Your task to perform on an android device: Is it going to rain tomorrow? Image 0: 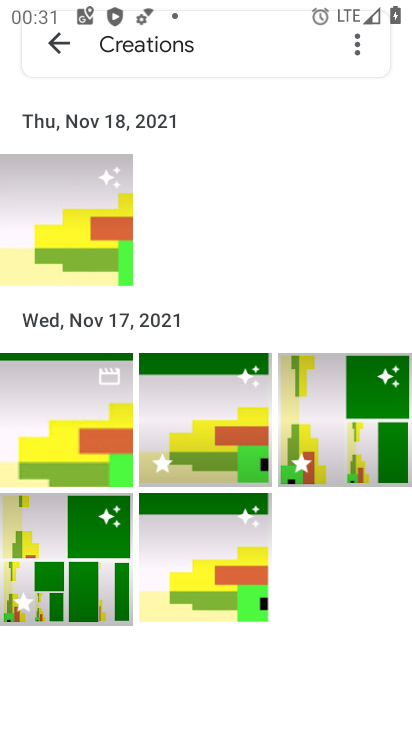
Step 0: press home button
Your task to perform on an android device: Is it going to rain tomorrow? Image 1: 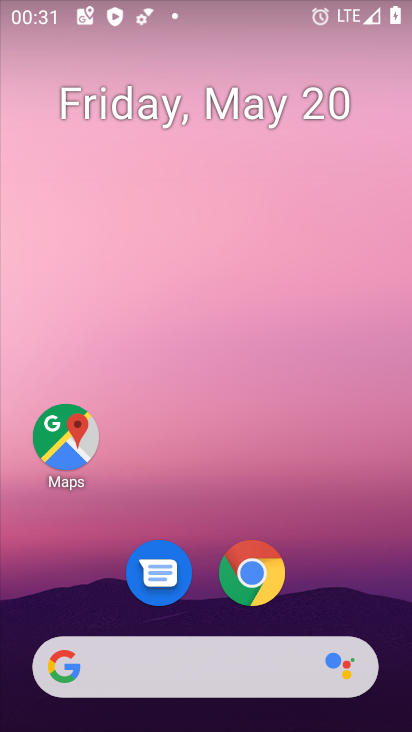
Step 1: drag from (197, 617) to (200, 182)
Your task to perform on an android device: Is it going to rain tomorrow? Image 2: 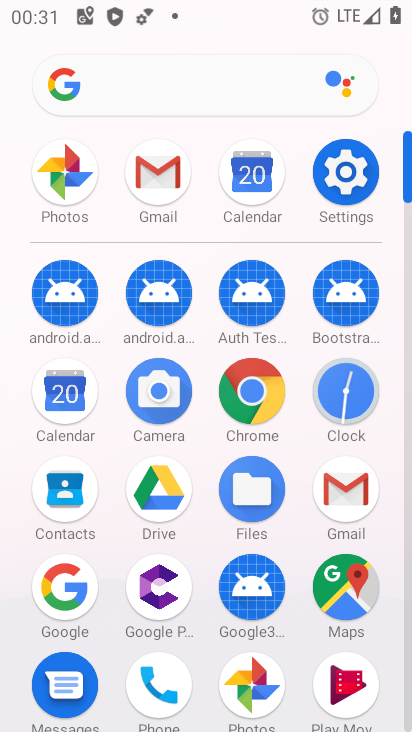
Step 2: click (71, 592)
Your task to perform on an android device: Is it going to rain tomorrow? Image 3: 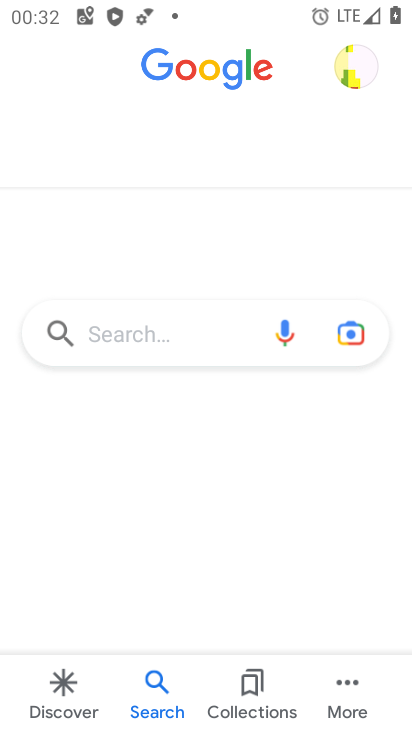
Step 3: click (157, 314)
Your task to perform on an android device: Is it going to rain tomorrow? Image 4: 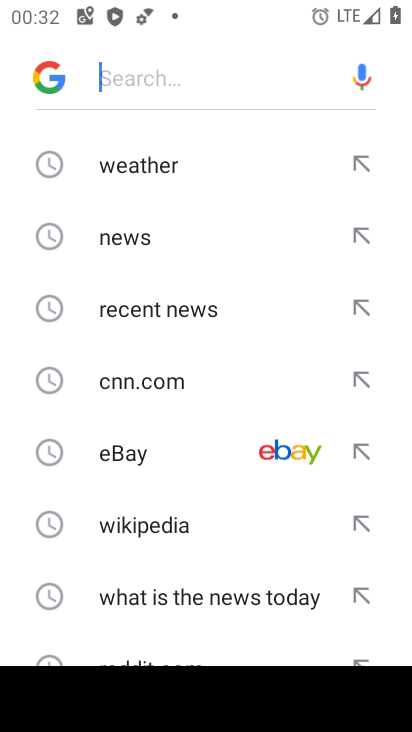
Step 4: click (153, 166)
Your task to perform on an android device: Is it going to rain tomorrow? Image 5: 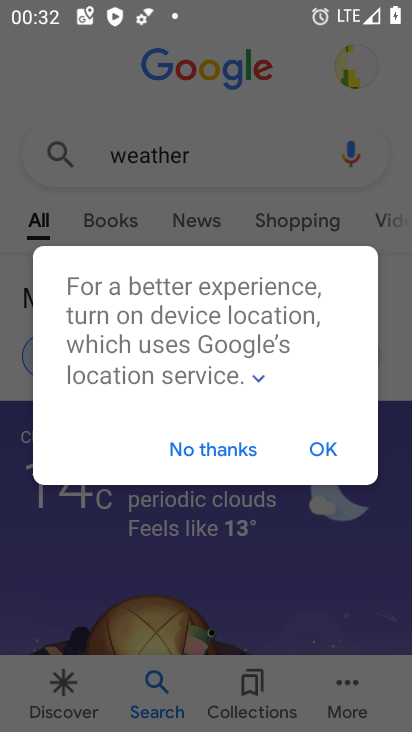
Step 5: click (253, 452)
Your task to perform on an android device: Is it going to rain tomorrow? Image 6: 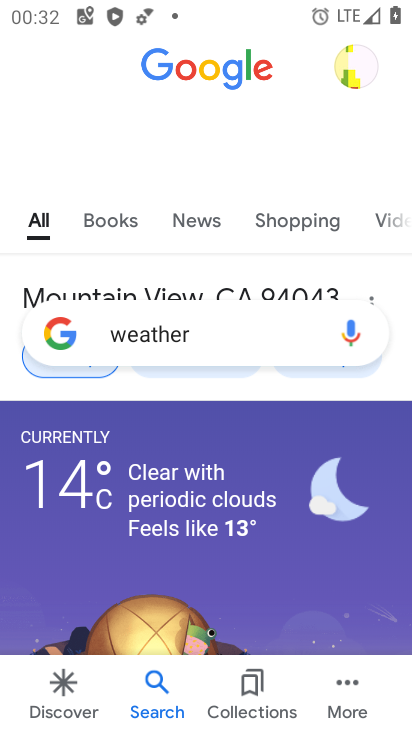
Step 6: drag from (210, 474) to (215, 623)
Your task to perform on an android device: Is it going to rain tomorrow? Image 7: 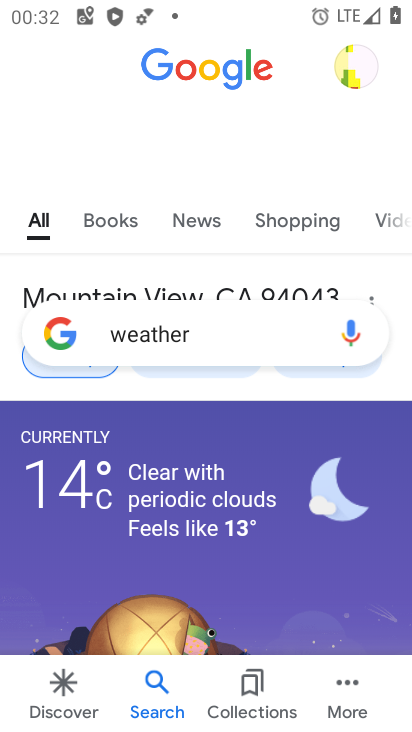
Step 7: click (192, 369)
Your task to perform on an android device: Is it going to rain tomorrow? Image 8: 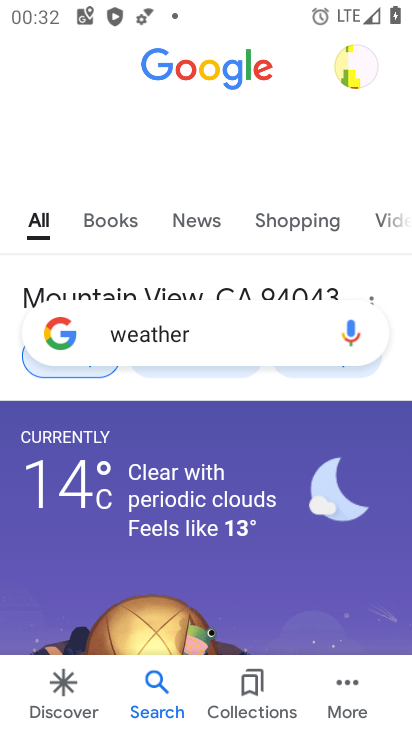
Step 8: click (192, 369)
Your task to perform on an android device: Is it going to rain tomorrow? Image 9: 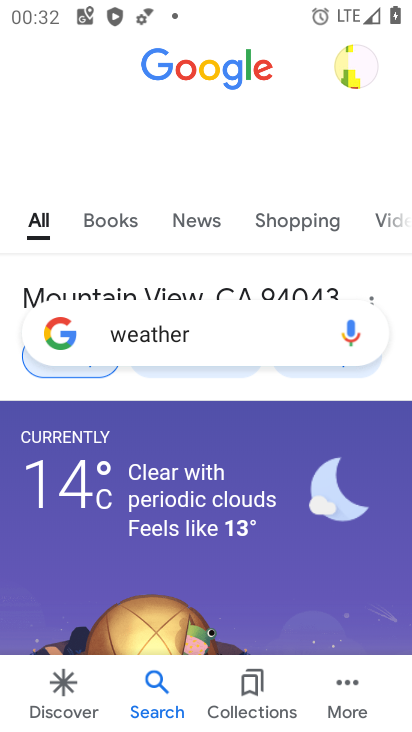
Step 9: click (192, 369)
Your task to perform on an android device: Is it going to rain tomorrow? Image 10: 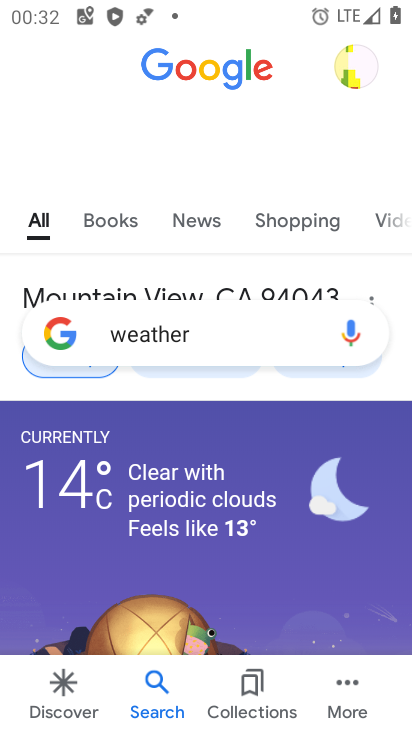
Step 10: click (192, 369)
Your task to perform on an android device: Is it going to rain tomorrow? Image 11: 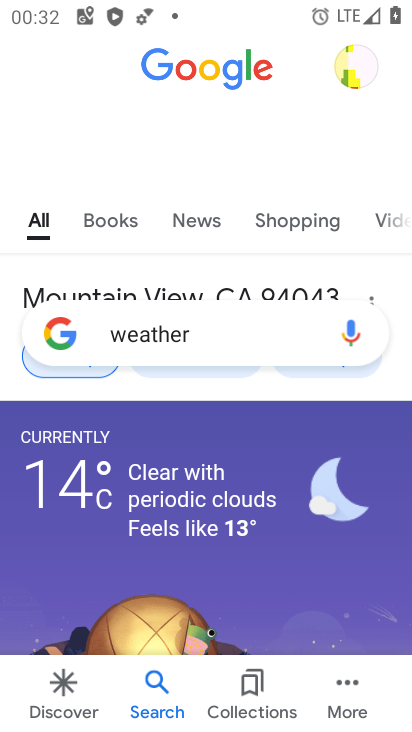
Step 11: click (192, 369)
Your task to perform on an android device: Is it going to rain tomorrow? Image 12: 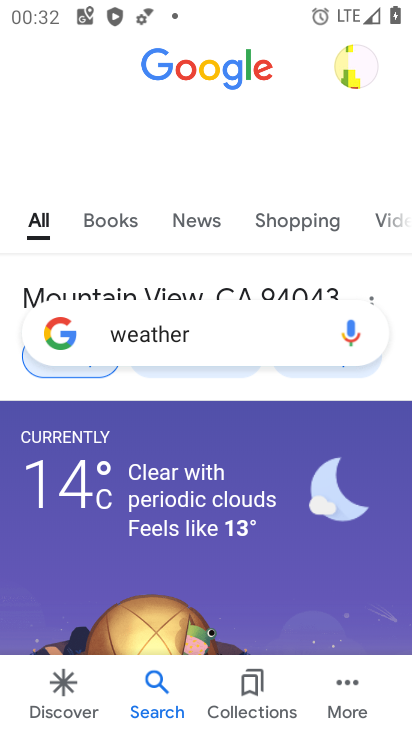
Step 12: drag from (237, 506) to (211, 160)
Your task to perform on an android device: Is it going to rain tomorrow? Image 13: 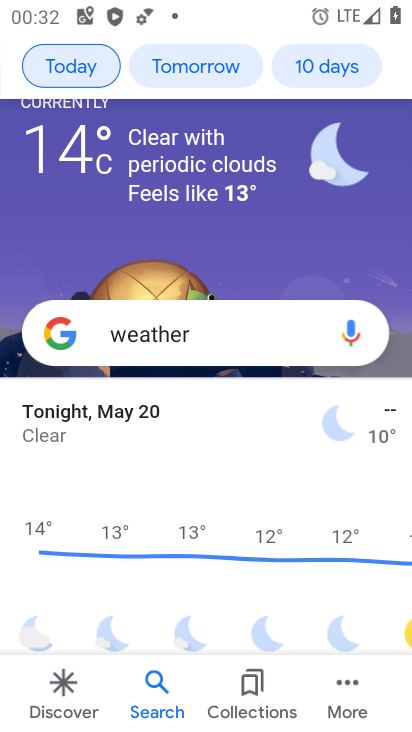
Step 13: click (191, 68)
Your task to perform on an android device: Is it going to rain tomorrow? Image 14: 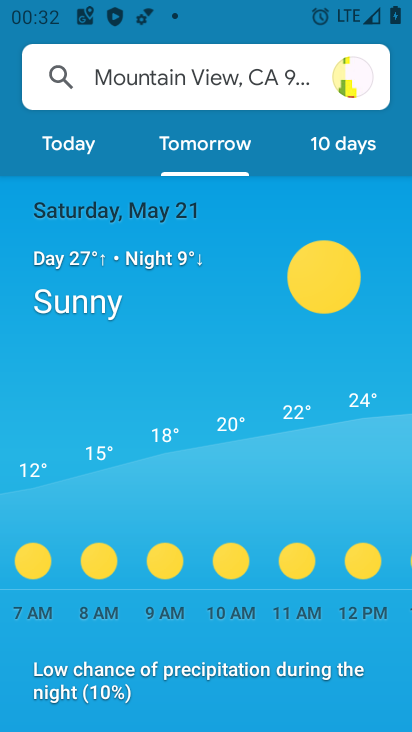
Step 14: task complete